Your task to perform on an android device: Open CNN.com Image 0: 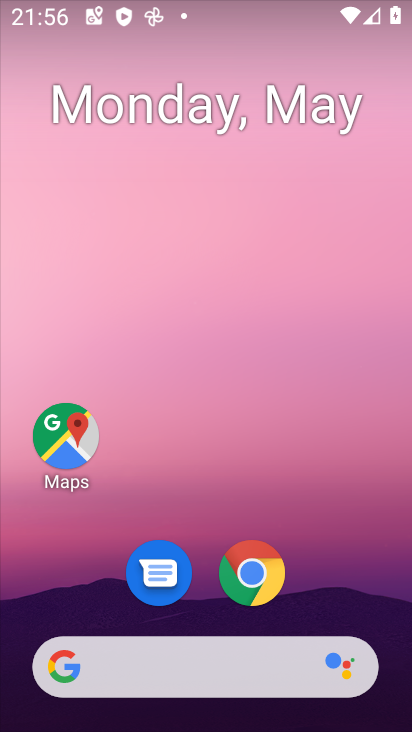
Step 0: click (273, 598)
Your task to perform on an android device: Open CNN.com Image 1: 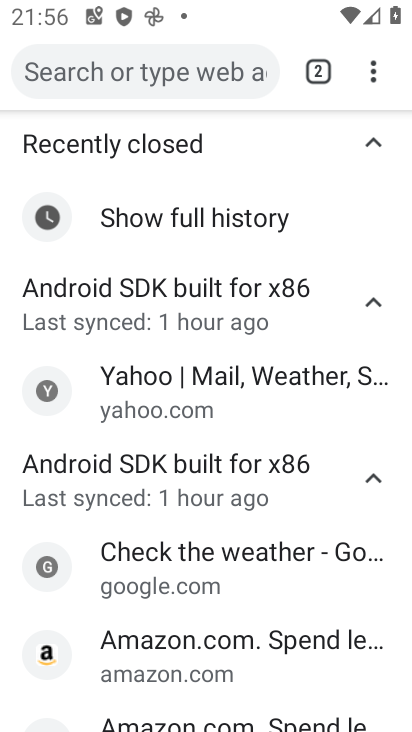
Step 1: task complete